Your task to perform on an android device: Open my contact list Image 0: 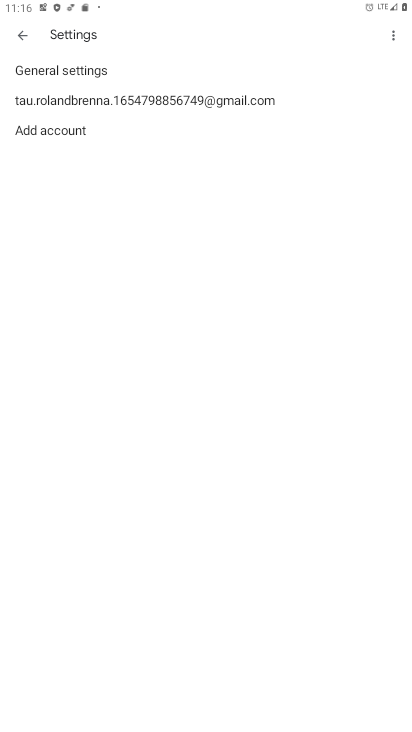
Step 0: press home button
Your task to perform on an android device: Open my contact list Image 1: 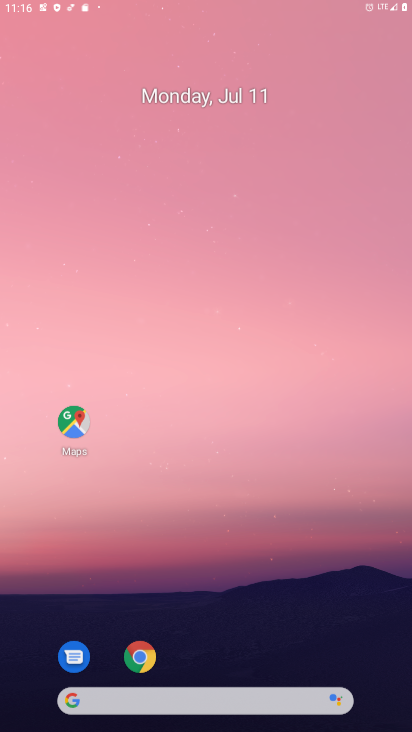
Step 1: drag from (54, 595) to (263, 9)
Your task to perform on an android device: Open my contact list Image 2: 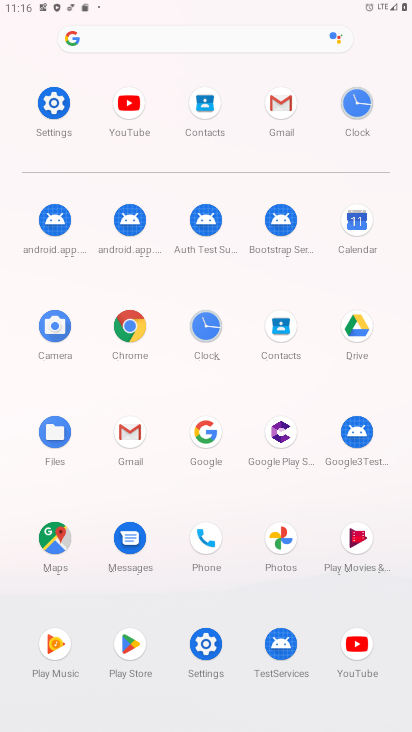
Step 2: click (278, 317)
Your task to perform on an android device: Open my contact list Image 3: 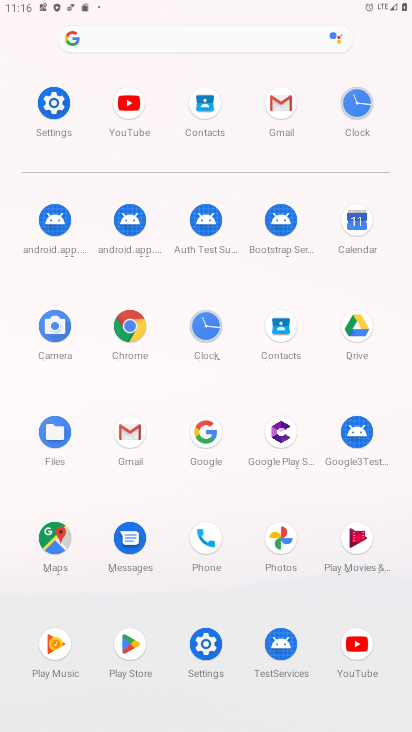
Step 3: click (278, 317)
Your task to perform on an android device: Open my contact list Image 4: 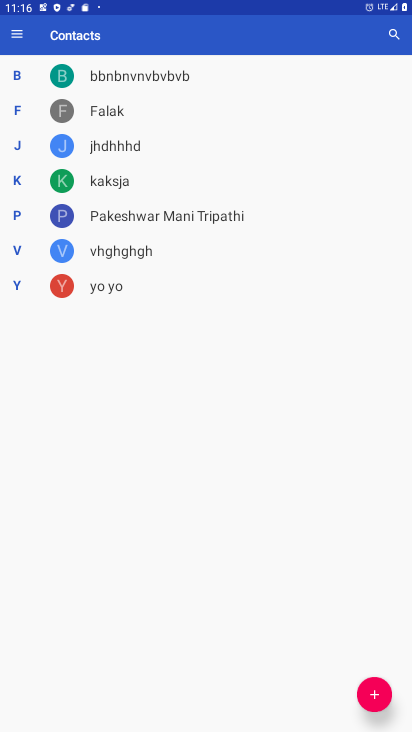
Step 4: task complete